Your task to perform on an android device: open chrome privacy settings Image 0: 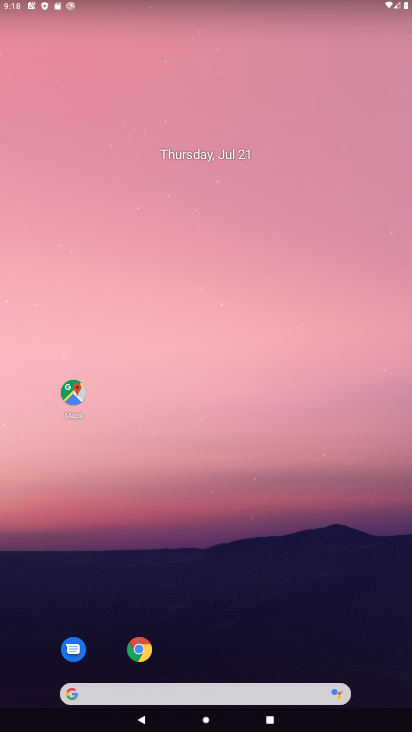
Step 0: click (135, 641)
Your task to perform on an android device: open chrome privacy settings Image 1: 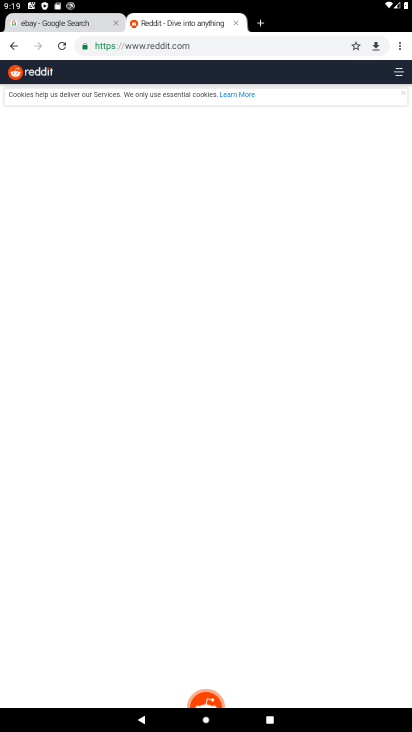
Step 1: click (393, 38)
Your task to perform on an android device: open chrome privacy settings Image 2: 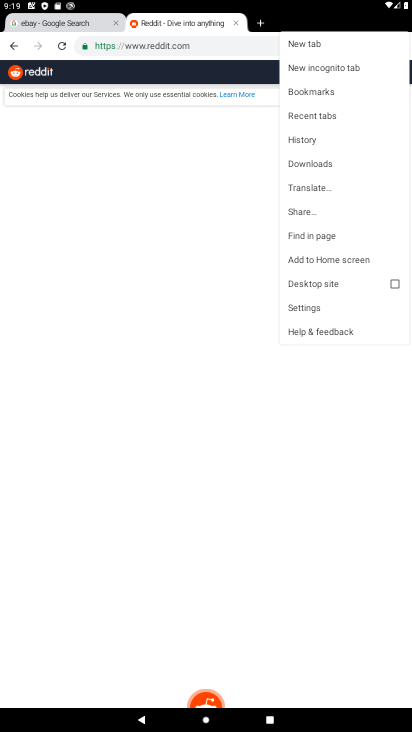
Step 2: click (309, 308)
Your task to perform on an android device: open chrome privacy settings Image 3: 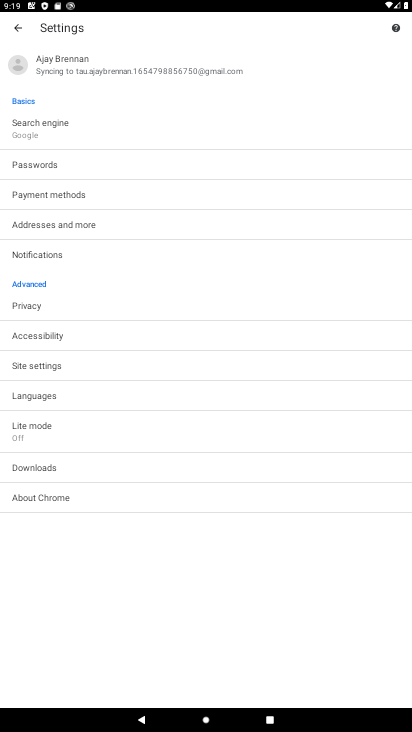
Step 3: click (74, 307)
Your task to perform on an android device: open chrome privacy settings Image 4: 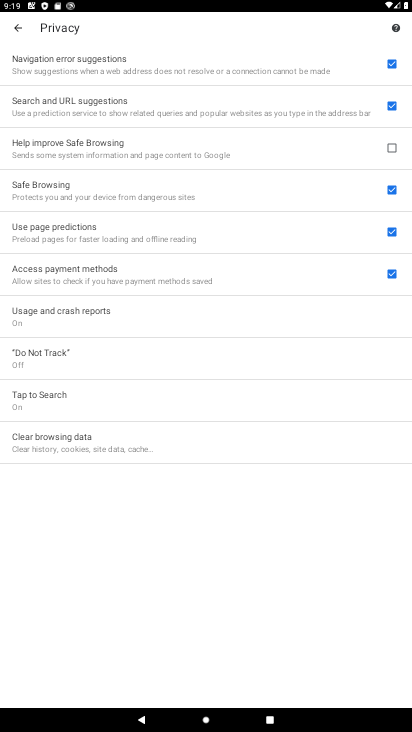
Step 4: task complete